Your task to perform on an android device: turn on location history Image 0: 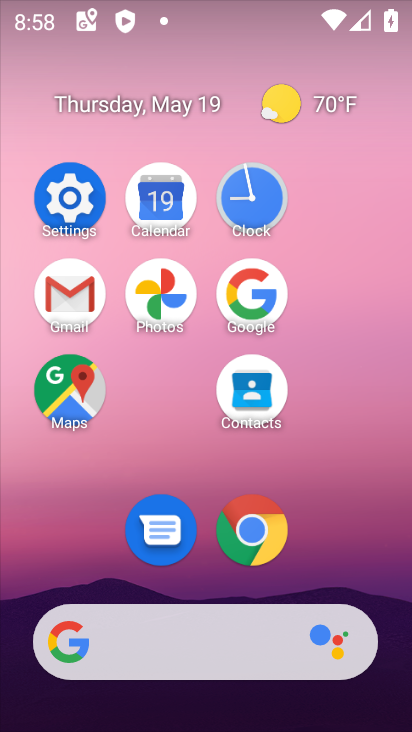
Step 0: click (81, 207)
Your task to perform on an android device: turn on location history Image 1: 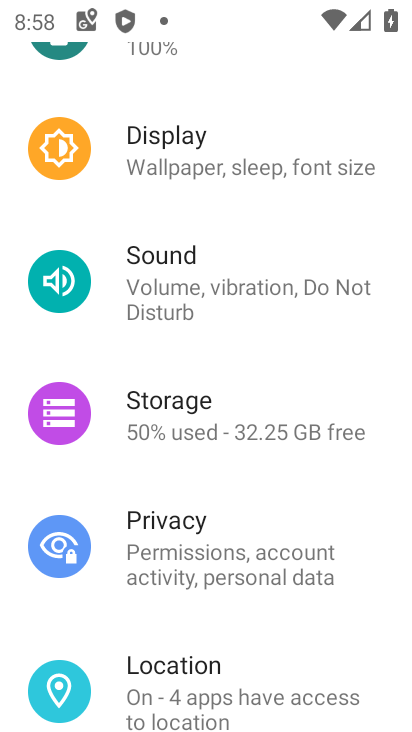
Step 1: click (286, 665)
Your task to perform on an android device: turn on location history Image 2: 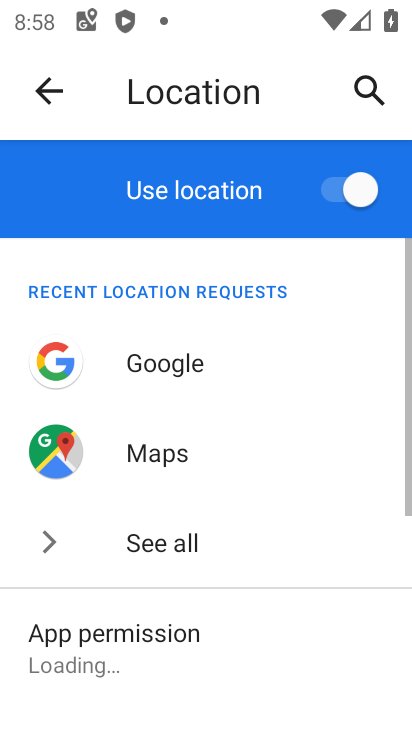
Step 2: drag from (282, 658) to (289, 289)
Your task to perform on an android device: turn on location history Image 3: 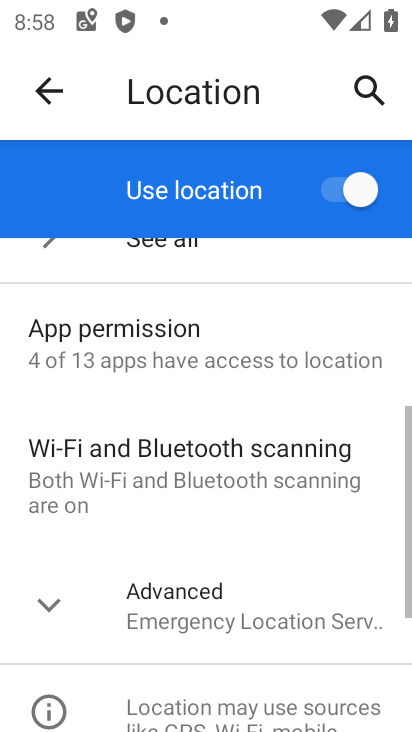
Step 3: click (324, 583)
Your task to perform on an android device: turn on location history Image 4: 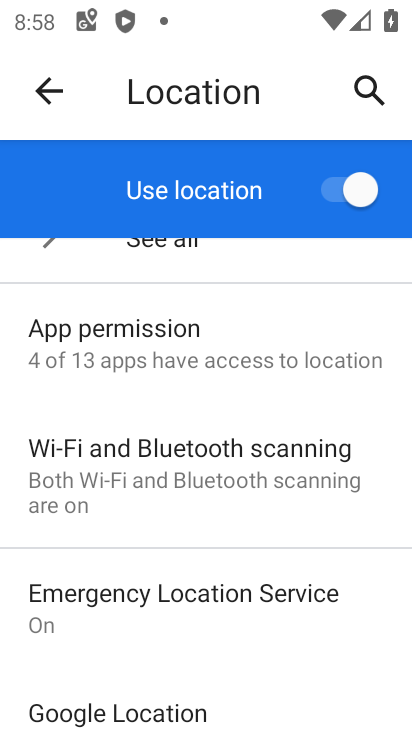
Step 4: drag from (283, 611) to (248, 260)
Your task to perform on an android device: turn on location history Image 5: 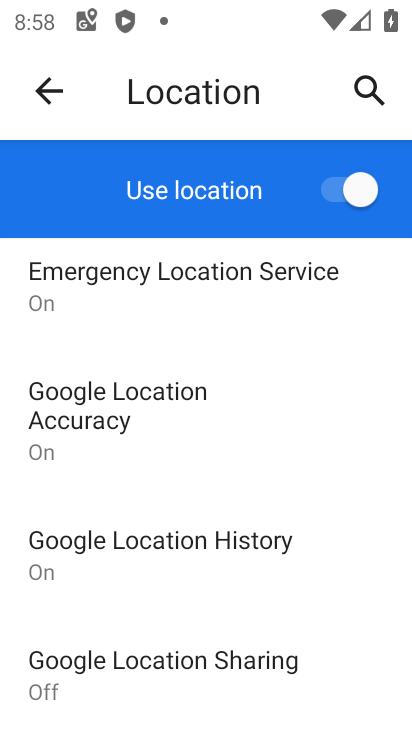
Step 5: click (206, 561)
Your task to perform on an android device: turn on location history Image 6: 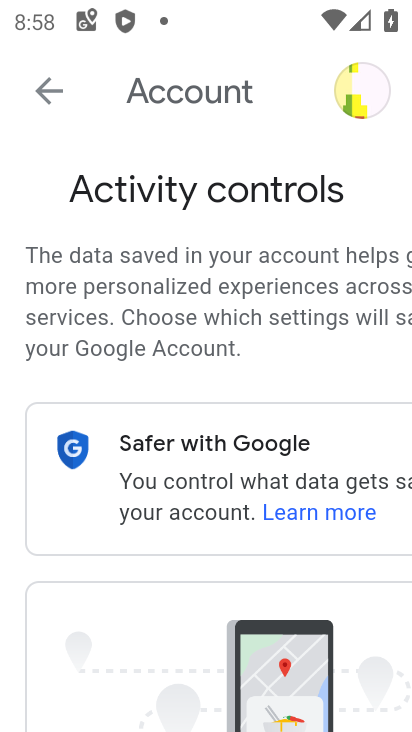
Step 6: task complete